Your task to perform on an android device: Go to accessibility settings Image 0: 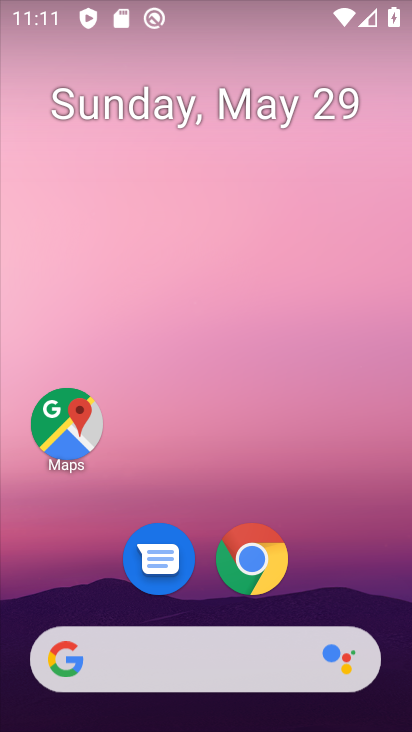
Step 0: drag from (82, 634) to (197, 115)
Your task to perform on an android device: Go to accessibility settings Image 1: 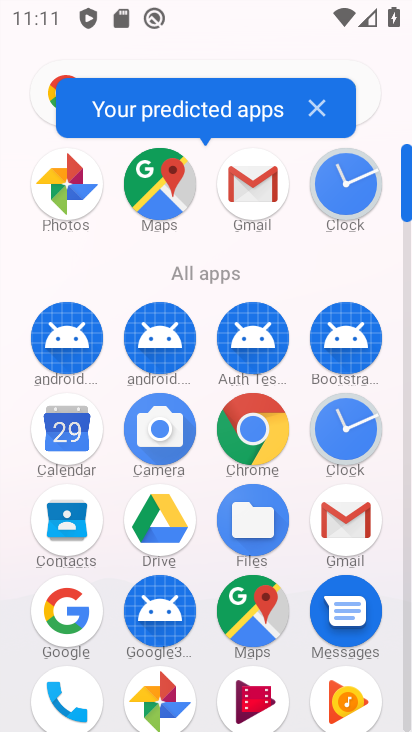
Step 1: drag from (125, 666) to (240, 289)
Your task to perform on an android device: Go to accessibility settings Image 2: 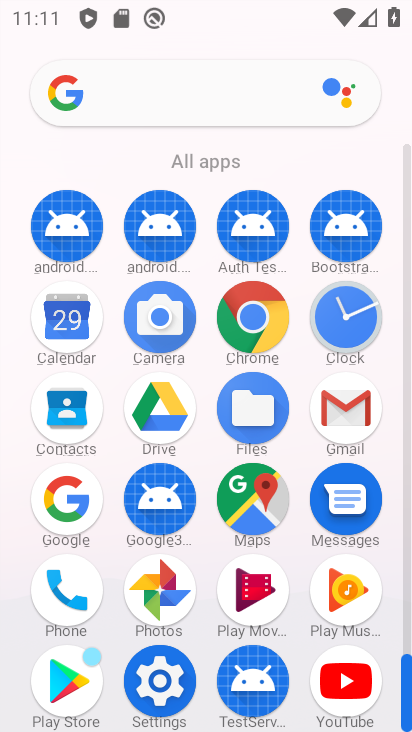
Step 2: click (169, 682)
Your task to perform on an android device: Go to accessibility settings Image 3: 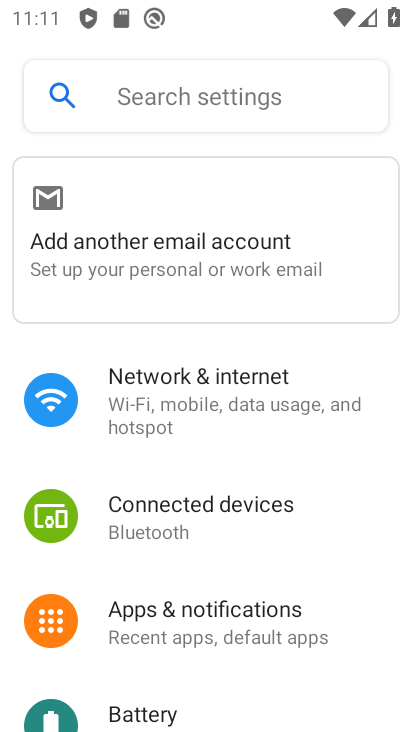
Step 3: drag from (146, 701) to (318, 16)
Your task to perform on an android device: Go to accessibility settings Image 4: 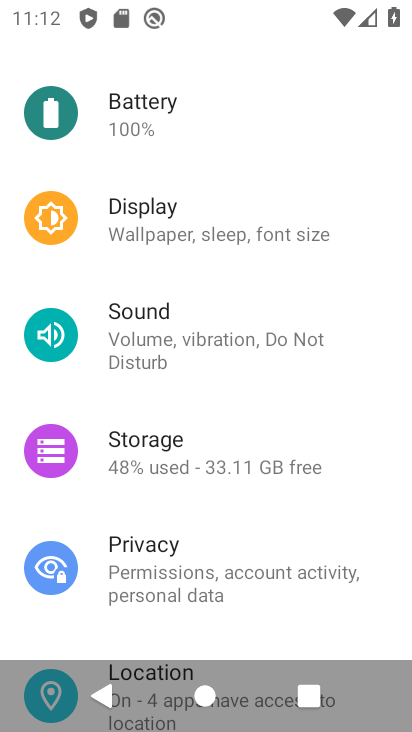
Step 4: drag from (136, 647) to (296, 68)
Your task to perform on an android device: Go to accessibility settings Image 5: 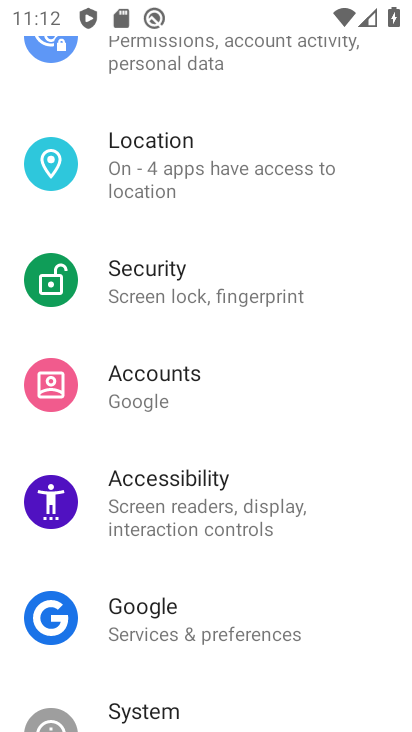
Step 5: click (180, 507)
Your task to perform on an android device: Go to accessibility settings Image 6: 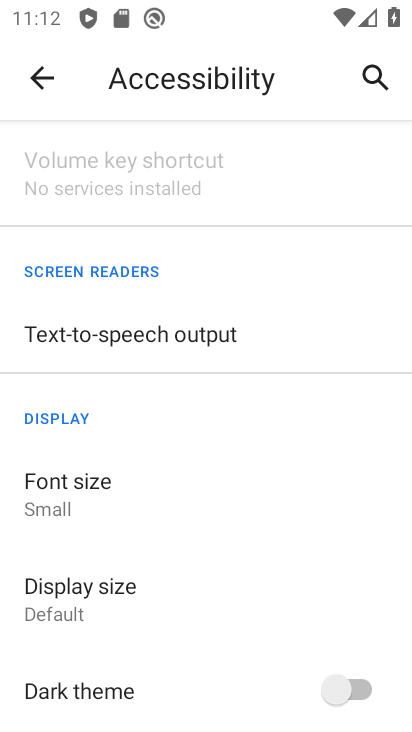
Step 6: task complete